Your task to perform on an android device: delete browsing data in the chrome app Image 0: 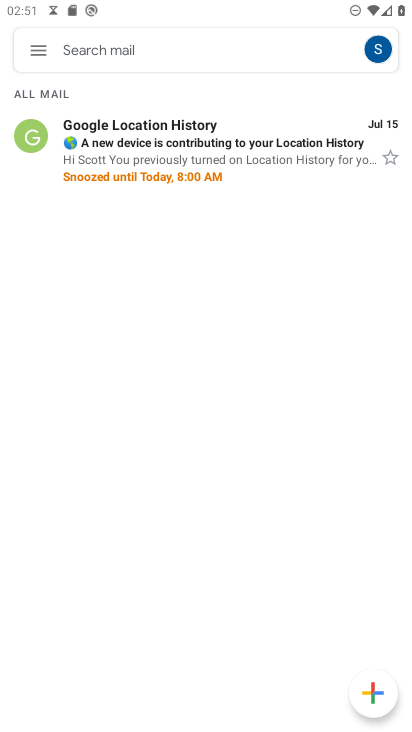
Step 0: press home button
Your task to perform on an android device: delete browsing data in the chrome app Image 1: 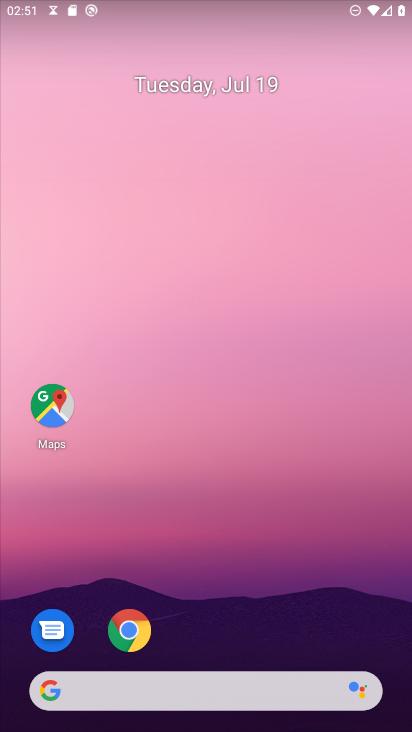
Step 1: click (124, 636)
Your task to perform on an android device: delete browsing data in the chrome app Image 2: 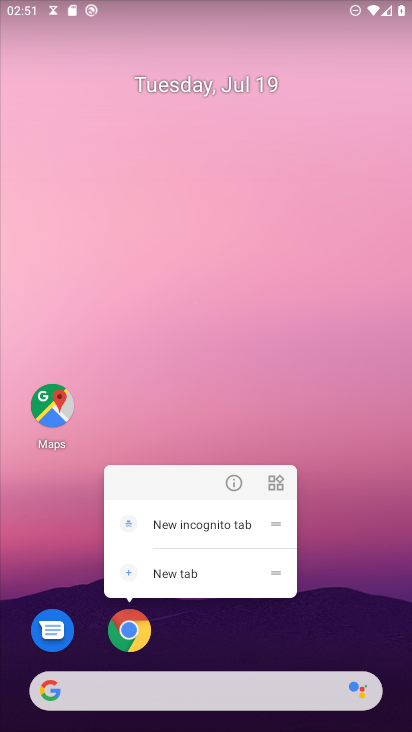
Step 2: click (134, 640)
Your task to perform on an android device: delete browsing data in the chrome app Image 3: 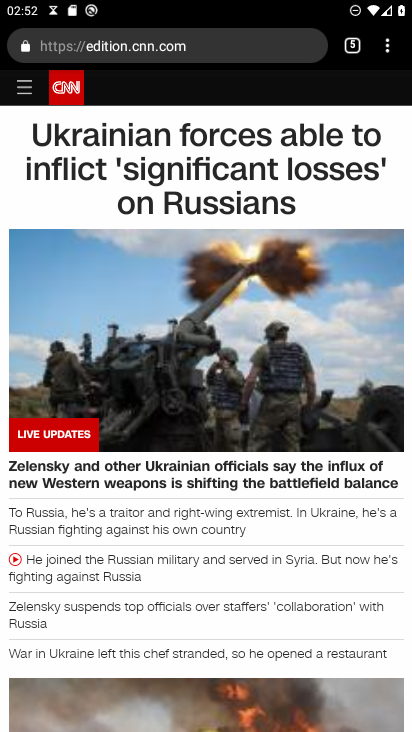
Step 3: drag from (382, 51) to (258, 514)
Your task to perform on an android device: delete browsing data in the chrome app Image 4: 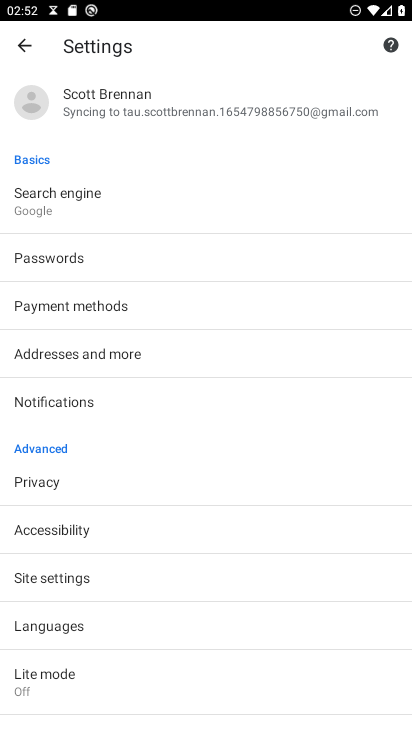
Step 4: click (52, 485)
Your task to perform on an android device: delete browsing data in the chrome app Image 5: 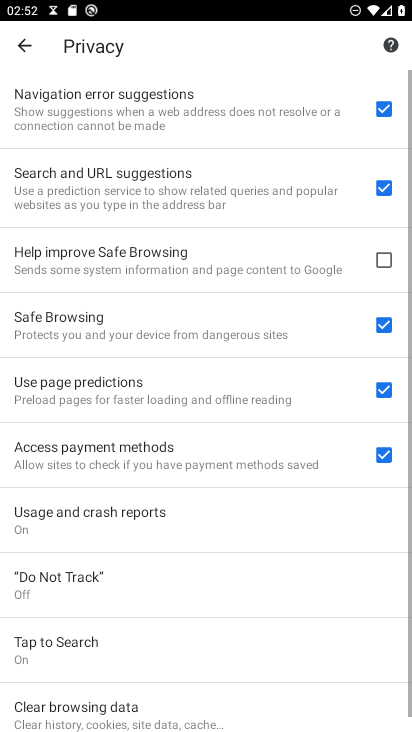
Step 5: drag from (132, 661) to (257, 354)
Your task to perform on an android device: delete browsing data in the chrome app Image 6: 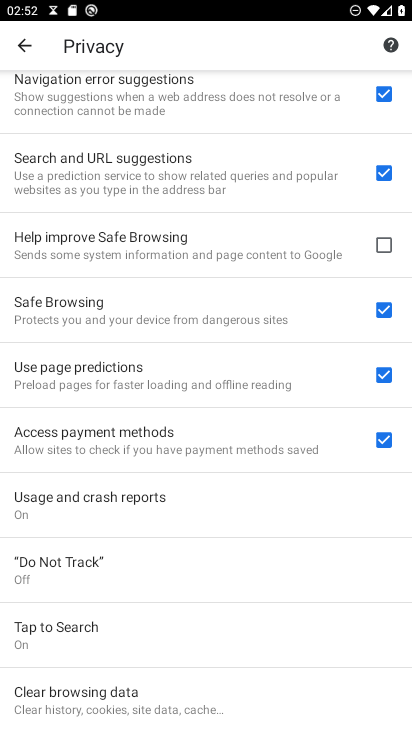
Step 6: click (152, 705)
Your task to perform on an android device: delete browsing data in the chrome app Image 7: 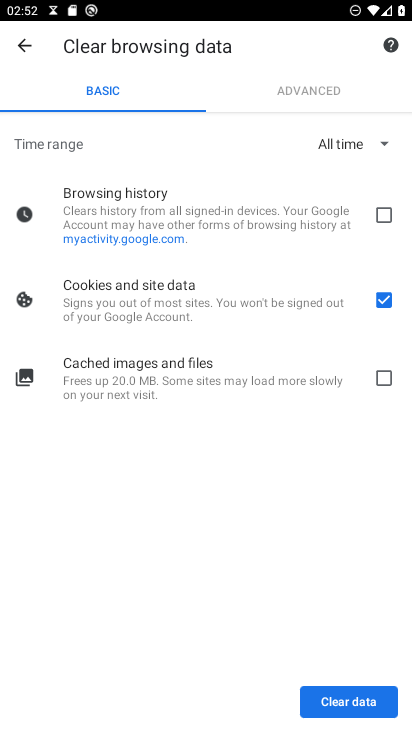
Step 7: click (384, 208)
Your task to perform on an android device: delete browsing data in the chrome app Image 8: 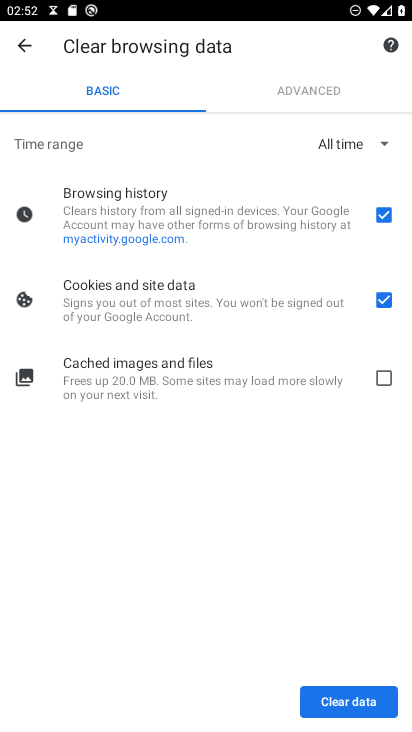
Step 8: click (381, 375)
Your task to perform on an android device: delete browsing data in the chrome app Image 9: 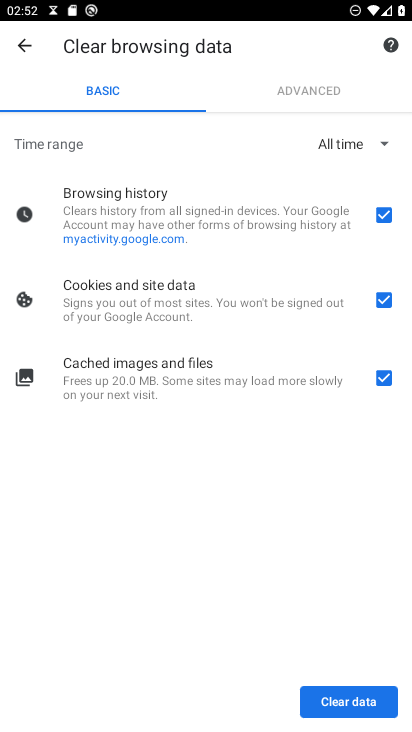
Step 9: click (342, 706)
Your task to perform on an android device: delete browsing data in the chrome app Image 10: 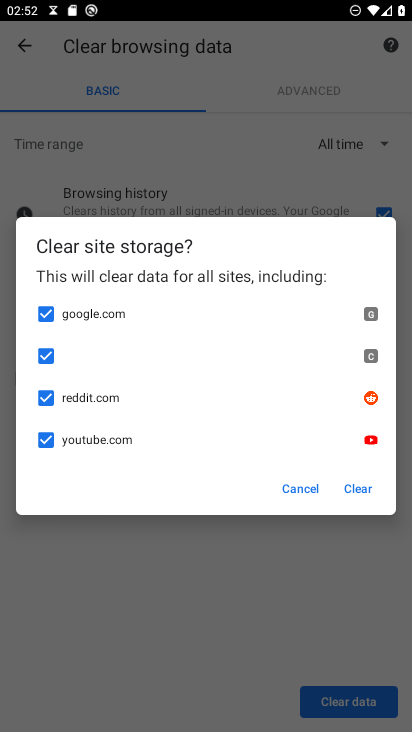
Step 10: click (358, 490)
Your task to perform on an android device: delete browsing data in the chrome app Image 11: 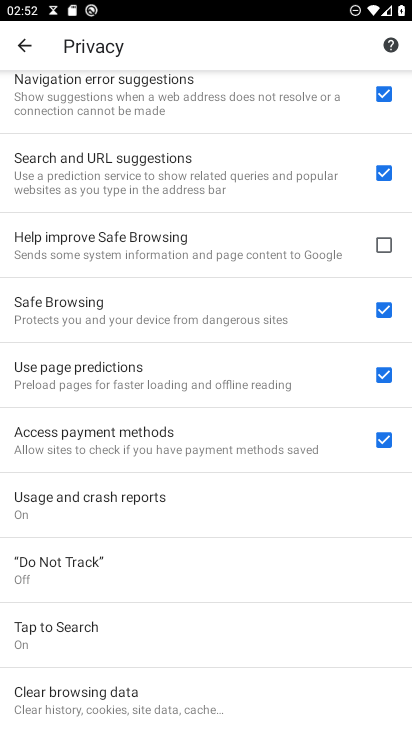
Step 11: task complete